Your task to perform on an android device: Open Yahoo.com Image 0: 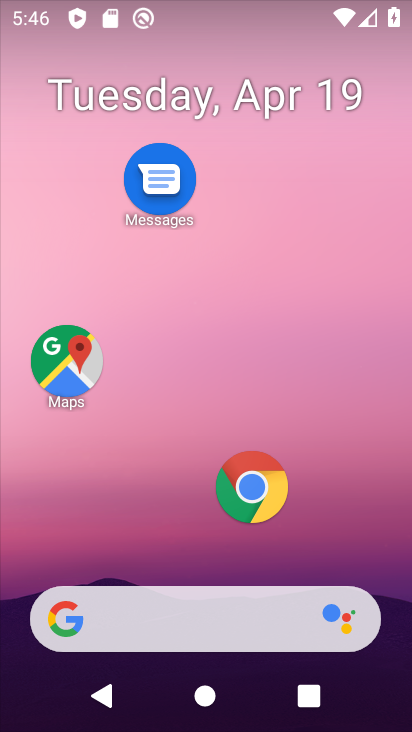
Step 0: drag from (207, 547) to (222, 41)
Your task to perform on an android device: Open Yahoo.com Image 1: 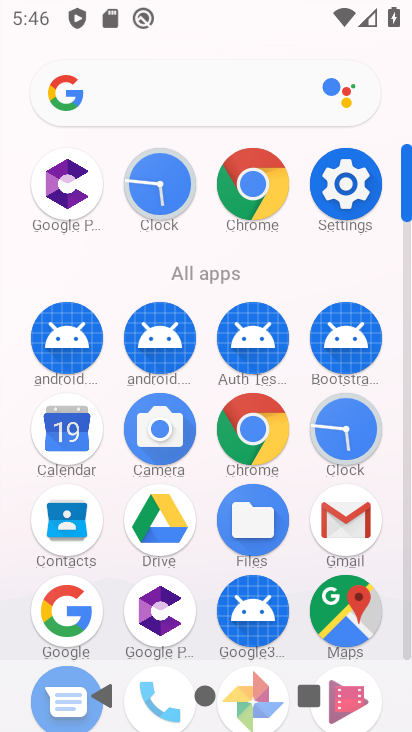
Step 1: click (250, 177)
Your task to perform on an android device: Open Yahoo.com Image 2: 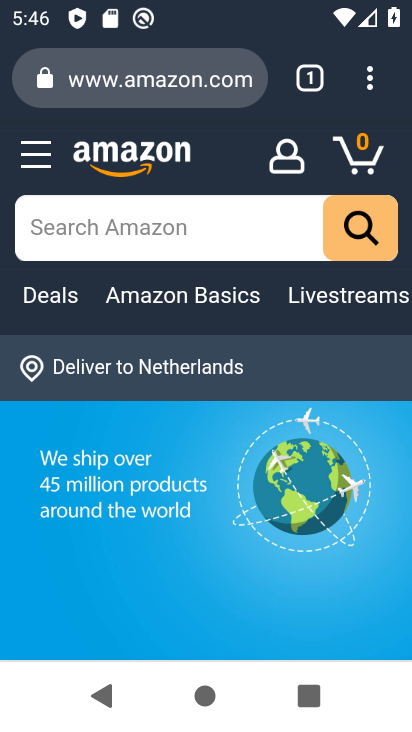
Step 2: click (307, 70)
Your task to perform on an android device: Open Yahoo.com Image 3: 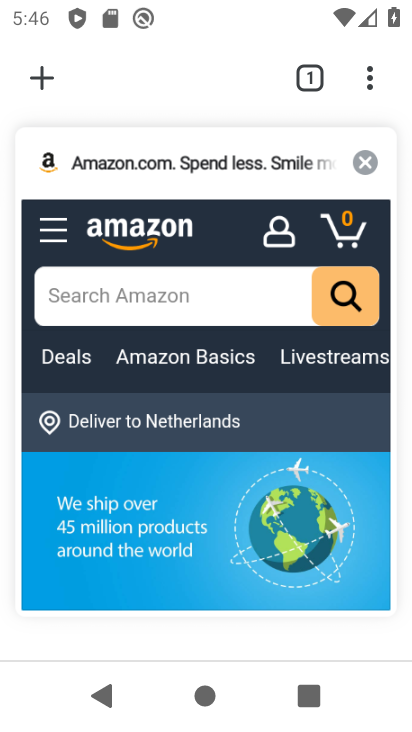
Step 3: click (49, 83)
Your task to perform on an android device: Open Yahoo.com Image 4: 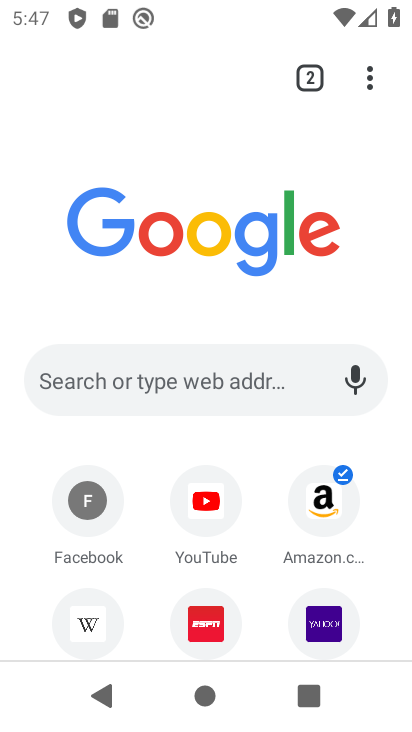
Step 4: click (320, 615)
Your task to perform on an android device: Open Yahoo.com Image 5: 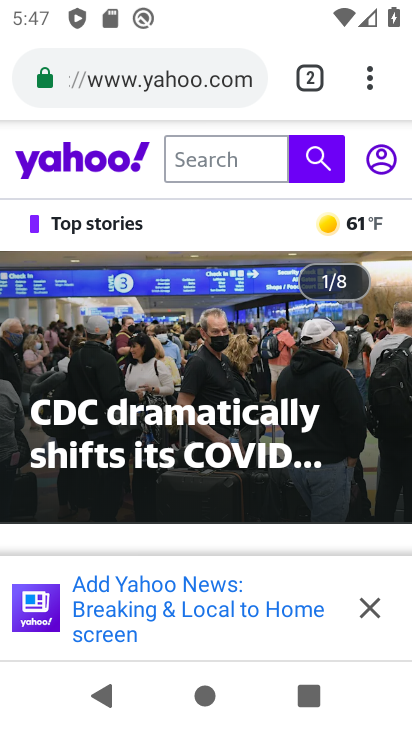
Step 5: click (366, 614)
Your task to perform on an android device: Open Yahoo.com Image 6: 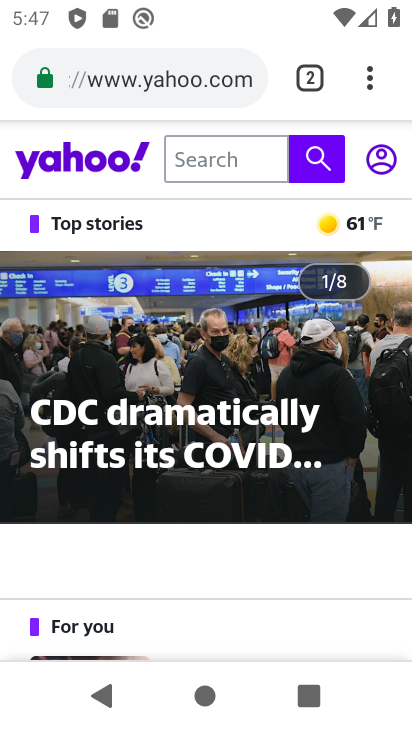
Step 6: task complete